Your task to perform on an android device: clear history in the chrome app Image 0: 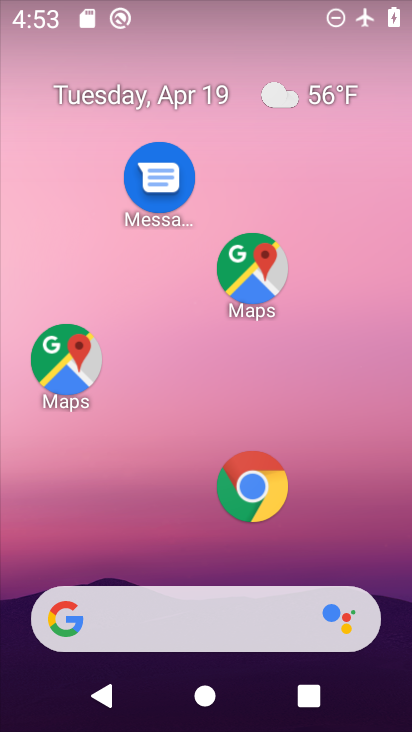
Step 0: click (207, 39)
Your task to perform on an android device: clear history in the chrome app Image 1: 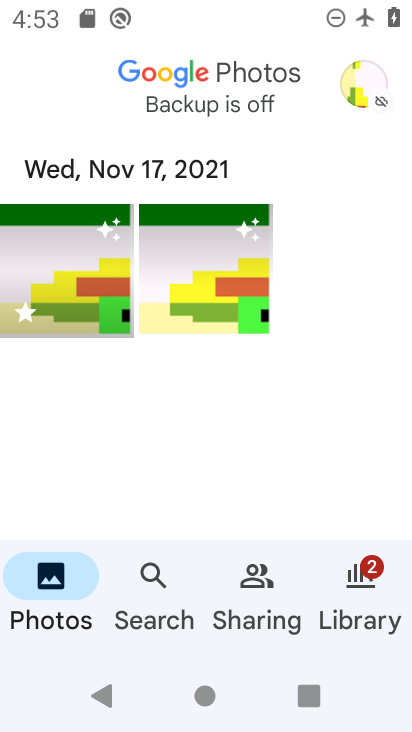
Step 1: press home button
Your task to perform on an android device: clear history in the chrome app Image 2: 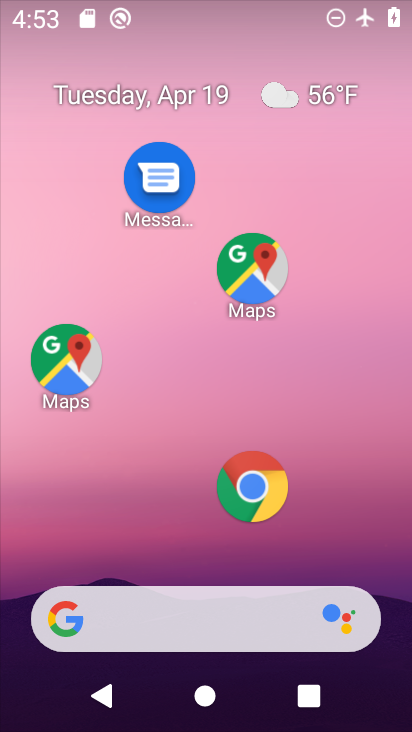
Step 2: click (273, 484)
Your task to perform on an android device: clear history in the chrome app Image 3: 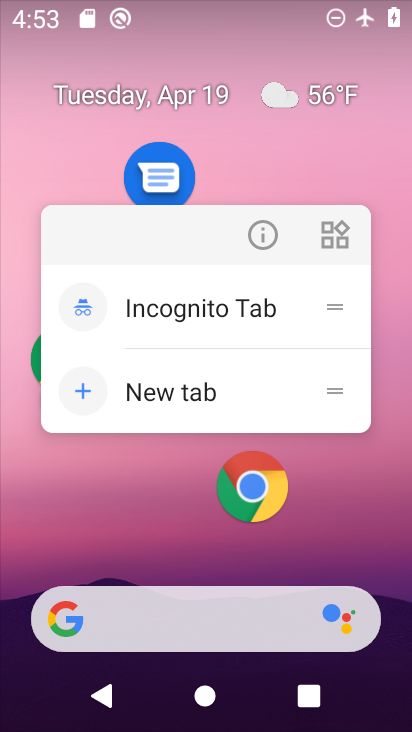
Step 3: click (257, 240)
Your task to perform on an android device: clear history in the chrome app Image 4: 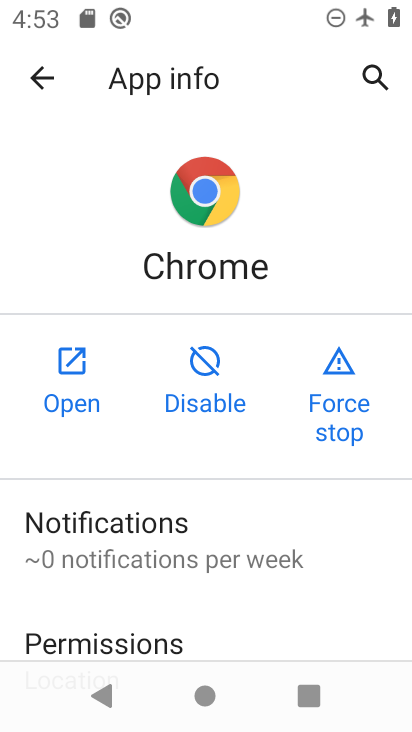
Step 4: click (90, 375)
Your task to perform on an android device: clear history in the chrome app Image 5: 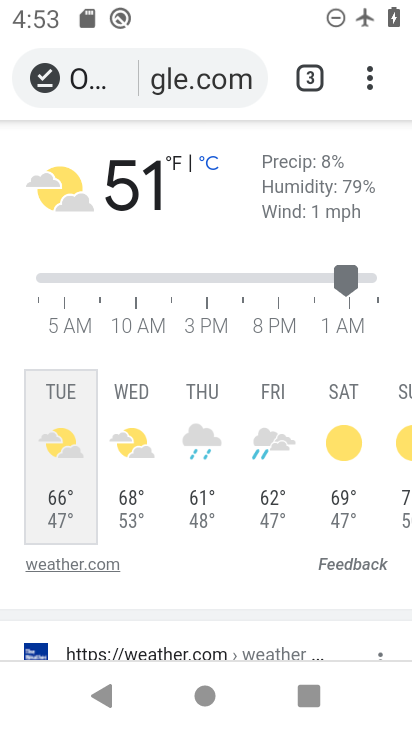
Step 5: click (364, 87)
Your task to perform on an android device: clear history in the chrome app Image 6: 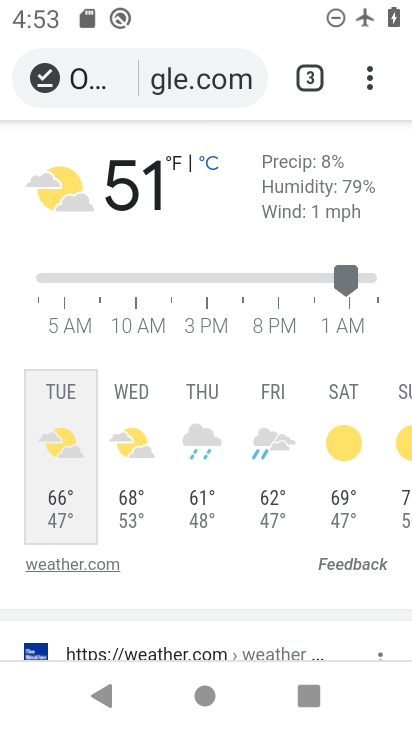
Step 6: click (372, 81)
Your task to perform on an android device: clear history in the chrome app Image 7: 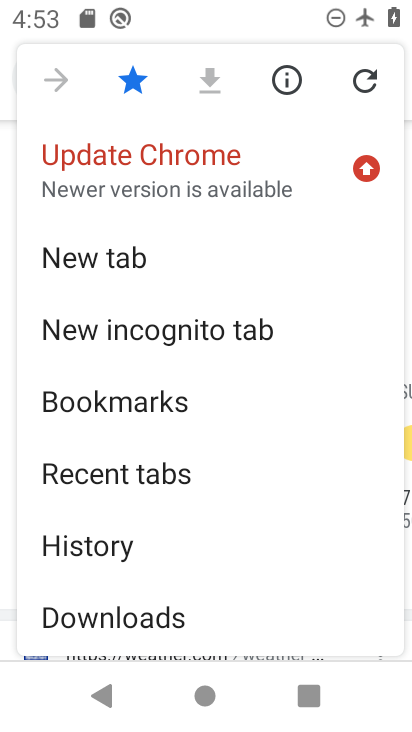
Step 7: click (151, 556)
Your task to perform on an android device: clear history in the chrome app Image 8: 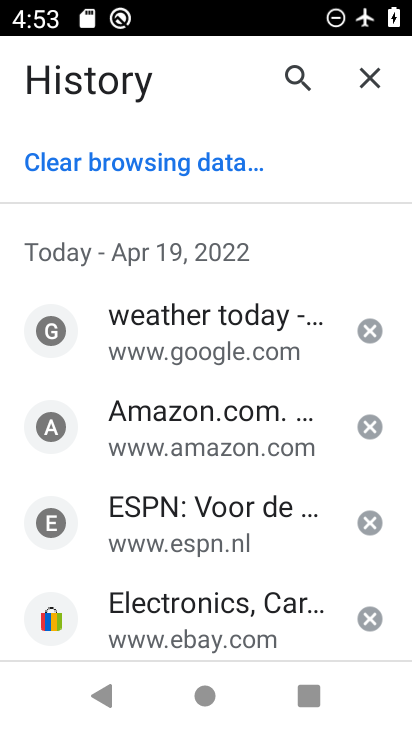
Step 8: click (204, 169)
Your task to perform on an android device: clear history in the chrome app Image 9: 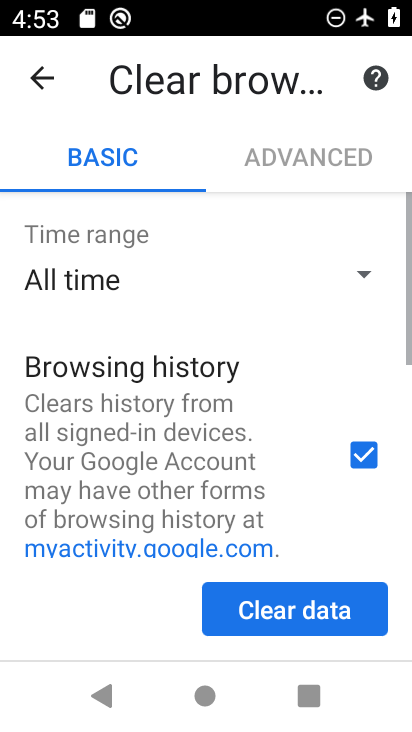
Step 9: click (281, 591)
Your task to perform on an android device: clear history in the chrome app Image 10: 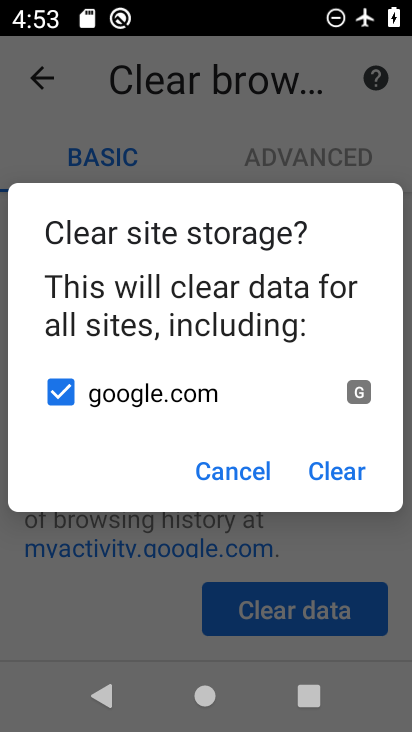
Step 10: click (329, 482)
Your task to perform on an android device: clear history in the chrome app Image 11: 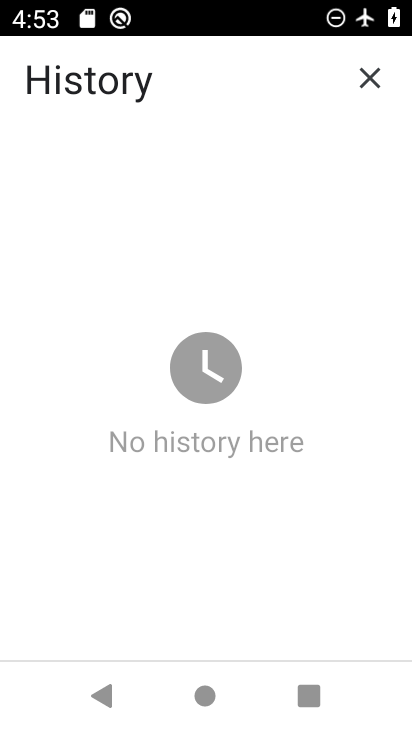
Step 11: task complete